Your task to perform on an android device: delete location history Image 0: 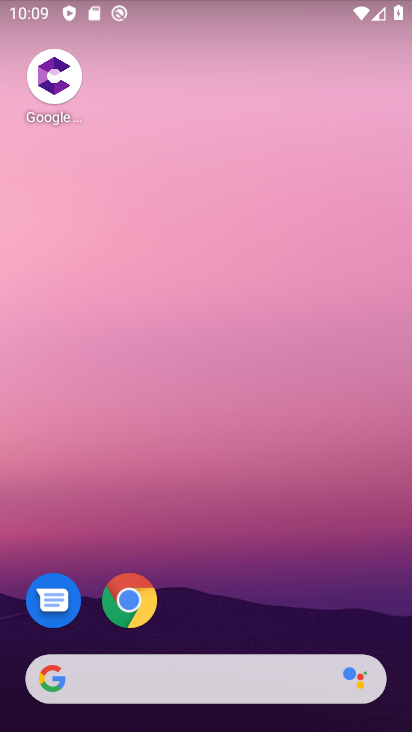
Step 0: drag from (349, 633) to (241, 125)
Your task to perform on an android device: delete location history Image 1: 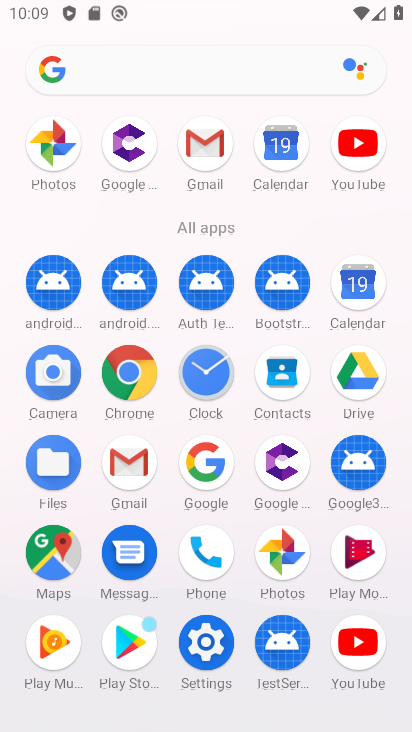
Step 1: click (197, 647)
Your task to perform on an android device: delete location history Image 2: 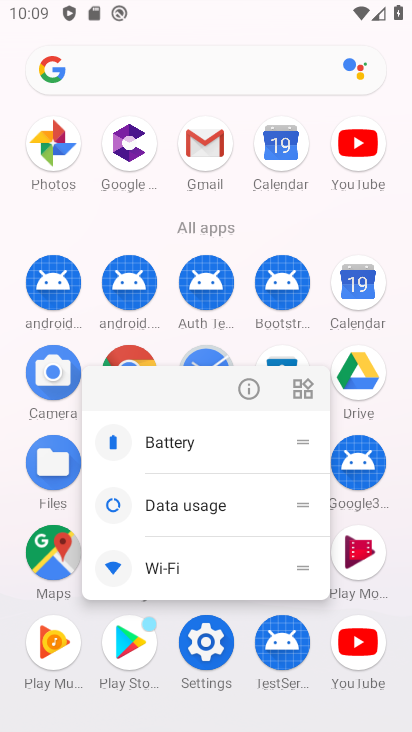
Step 2: click (48, 558)
Your task to perform on an android device: delete location history Image 3: 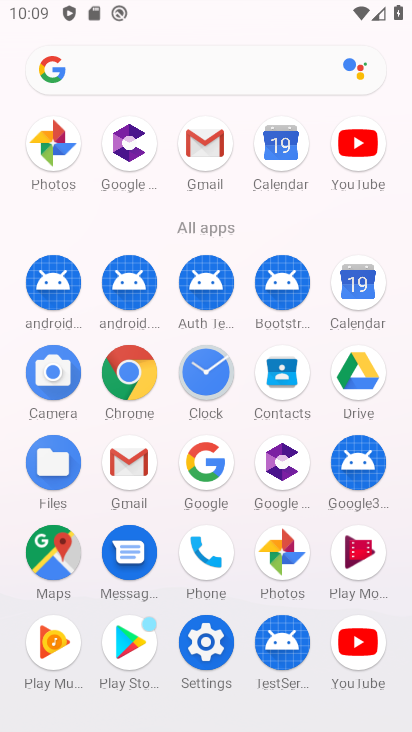
Step 3: click (48, 558)
Your task to perform on an android device: delete location history Image 4: 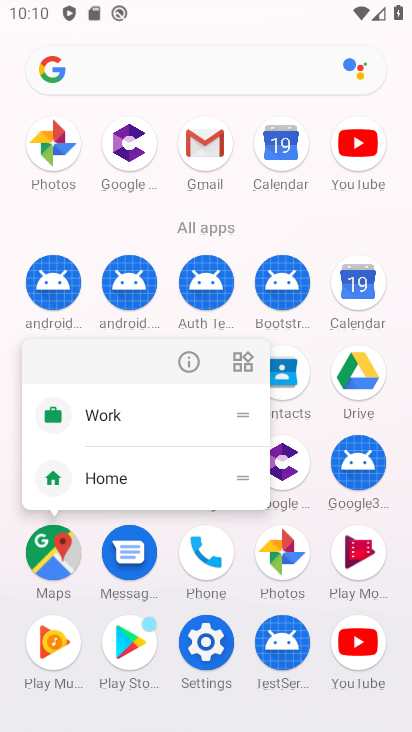
Step 4: click (36, 545)
Your task to perform on an android device: delete location history Image 5: 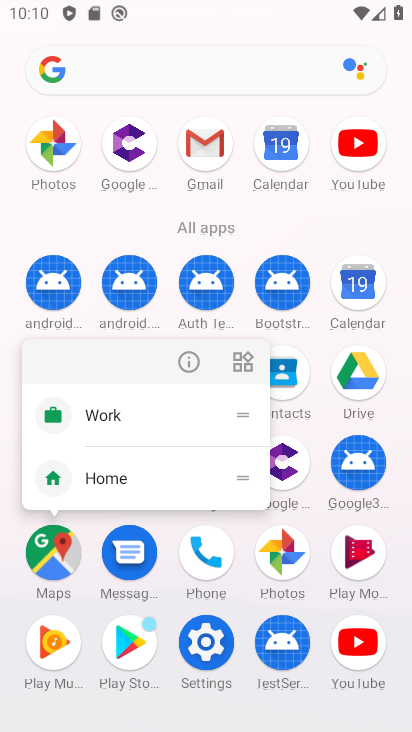
Step 5: click (55, 566)
Your task to perform on an android device: delete location history Image 6: 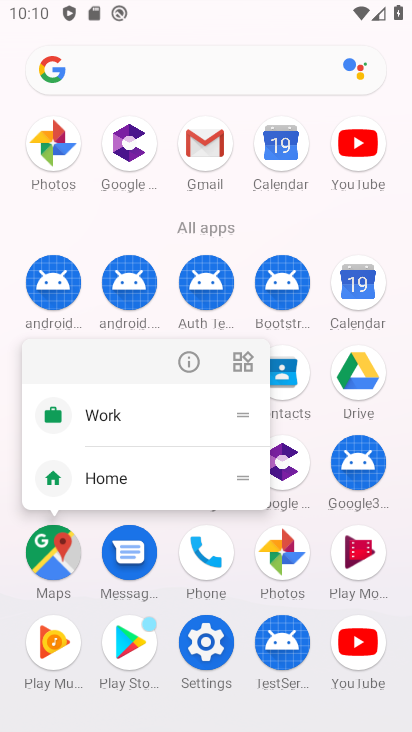
Step 6: click (105, 474)
Your task to perform on an android device: delete location history Image 7: 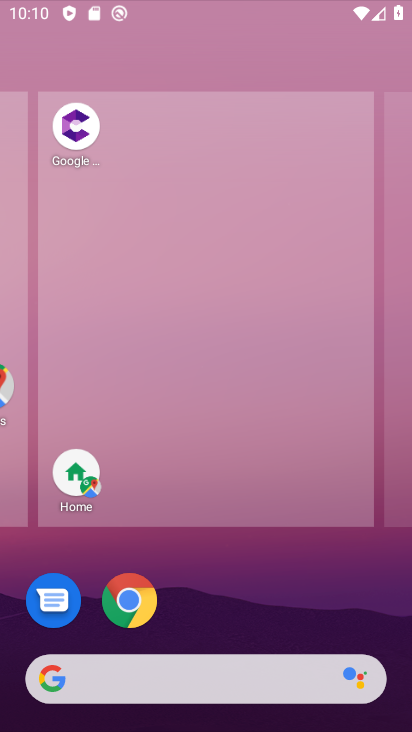
Step 7: click (155, 596)
Your task to perform on an android device: delete location history Image 8: 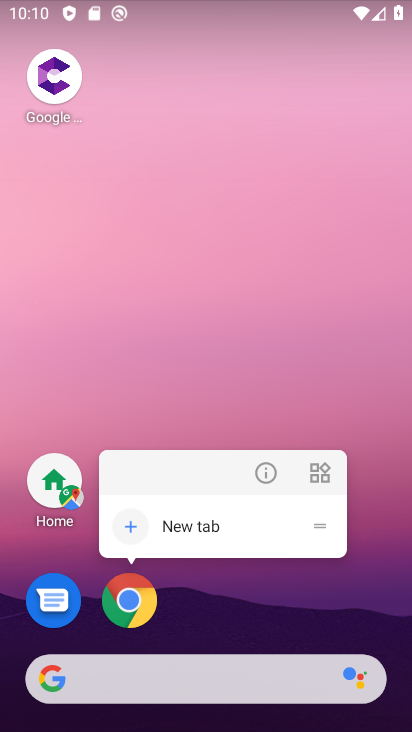
Step 8: drag from (205, 643) to (286, 29)
Your task to perform on an android device: delete location history Image 9: 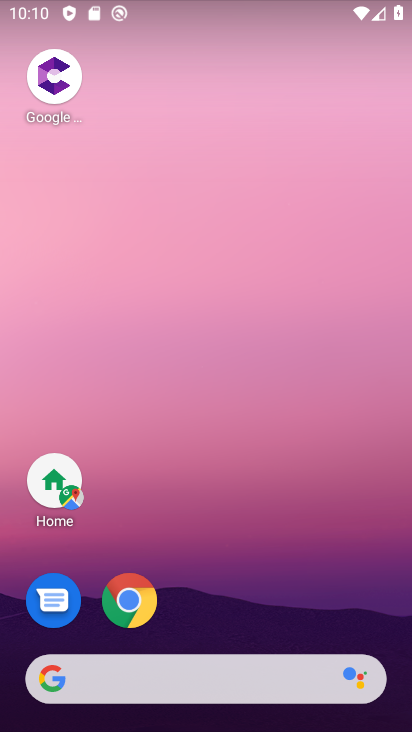
Step 9: drag from (302, 652) to (284, 24)
Your task to perform on an android device: delete location history Image 10: 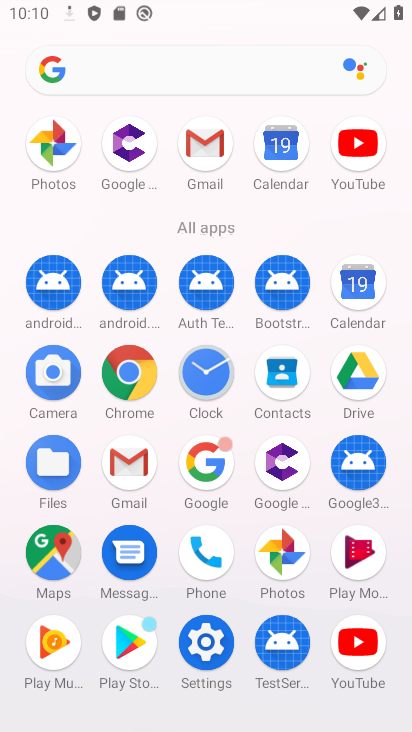
Step 10: click (44, 569)
Your task to perform on an android device: delete location history Image 11: 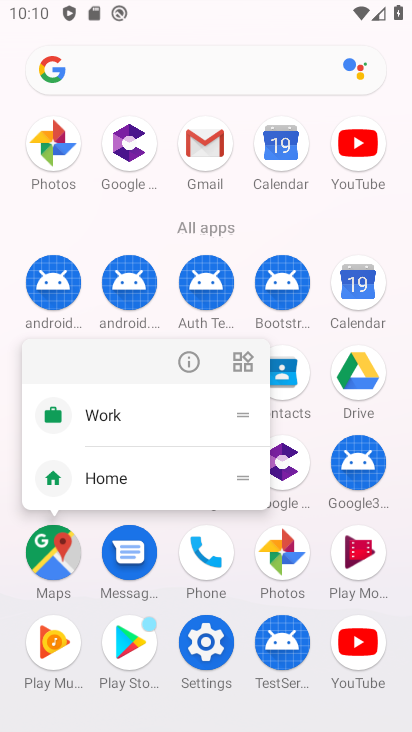
Step 11: click (34, 550)
Your task to perform on an android device: delete location history Image 12: 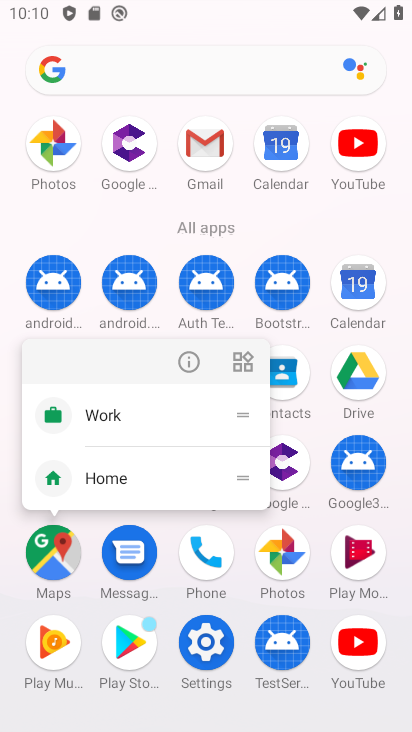
Step 12: click (38, 566)
Your task to perform on an android device: delete location history Image 13: 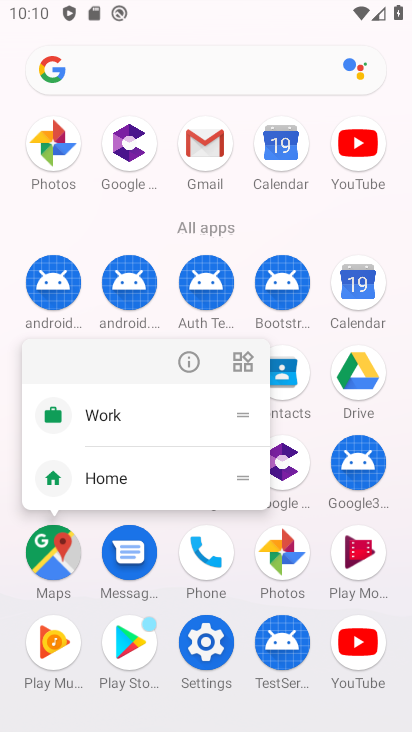
Step 13: click (48, 563)
Your task to perform on an android device: delete location history Image 14: 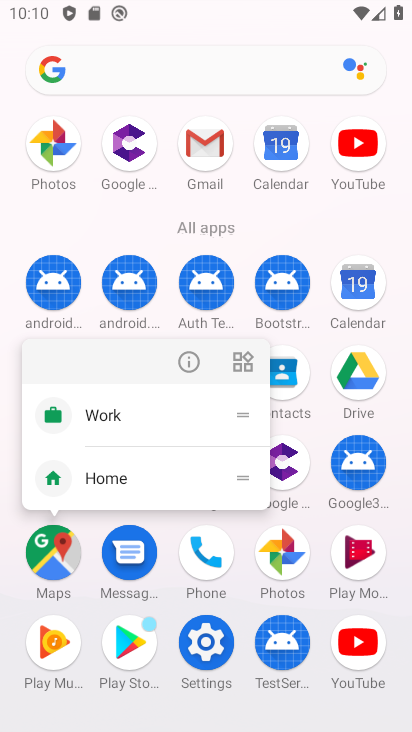
Step 14: click (48, 563)
Your task to perform on an android device: delete location history Image 15: 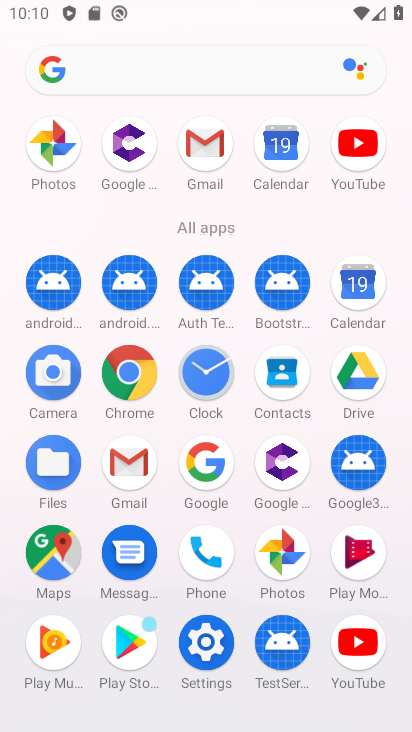
Step 15: click (64, 568)
Your task to perform on an android device: delete location history Image 16: 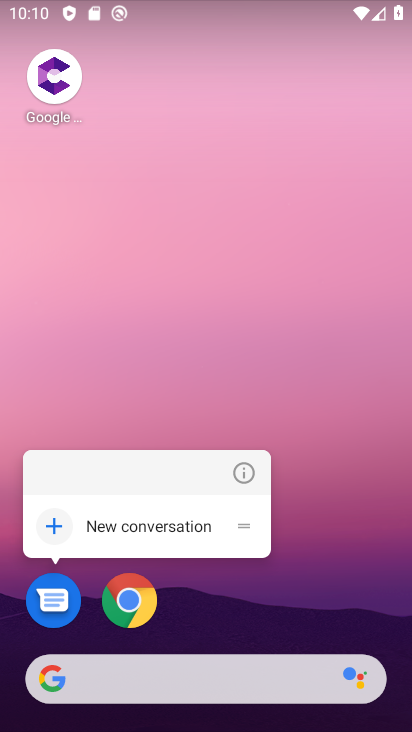
Step 16: click (258, 601)
Your task to perform on an android device: delete location history Image 17: 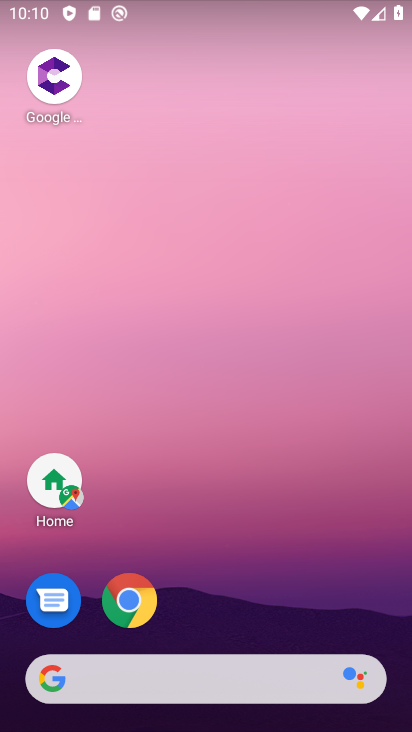
Step 17: drag from (261, 419) to (271, 130)
Your task to perform on an android device: delete location history Image 18: 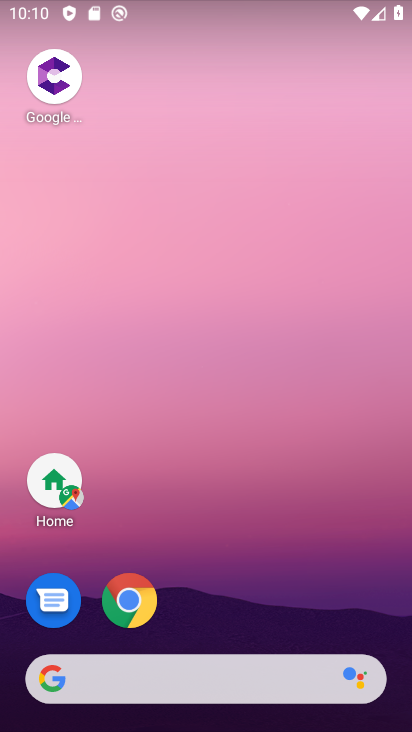
Step 18: drag from (191, 661) to (256, 87)
Your task to perform on an android device: delete location history Image 19: 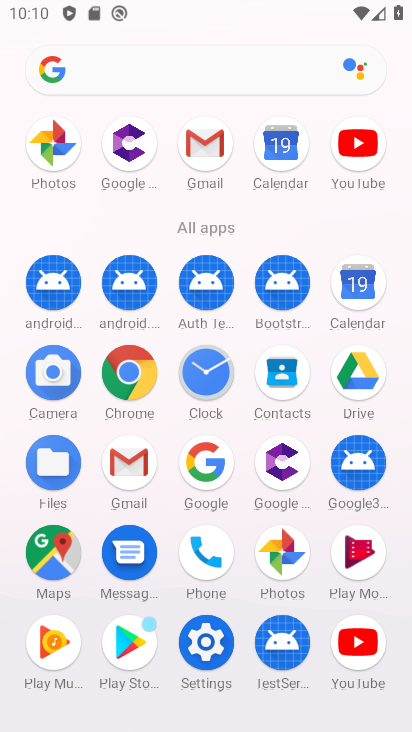
Step 19: click (38, 555)
Your task to perform on an android device: delete location history Image 20: 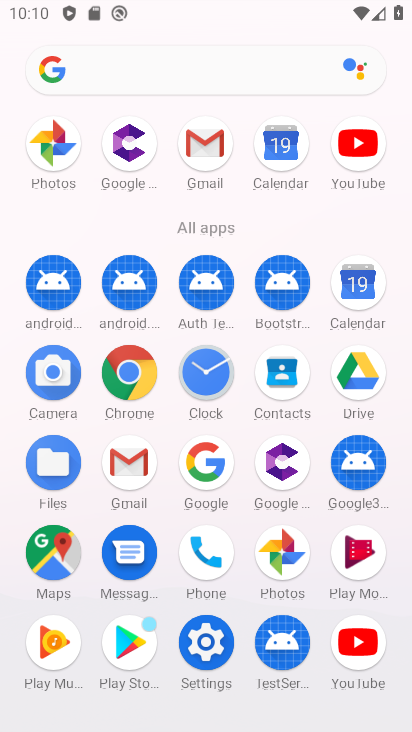
Step 20: click (38, 555)
Your task to perform on an android device: delete location history Image 21: 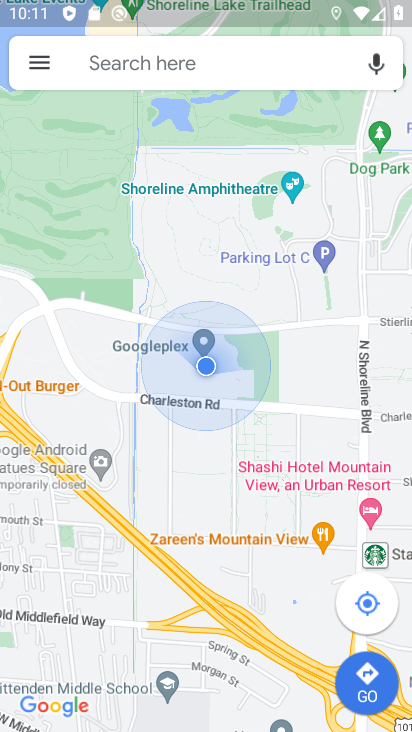
Step 21: click (23, 57)
Your task to perform on an android device: delete location history Image 22: 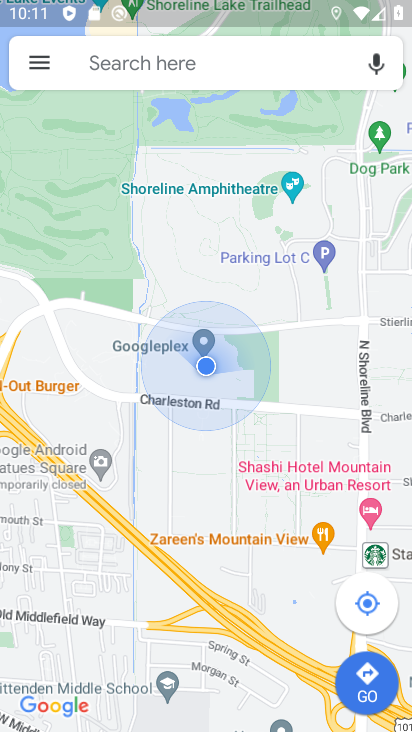
Step 22: click (35, 62)
Your task to perform on an android device: delete location history Image 23: 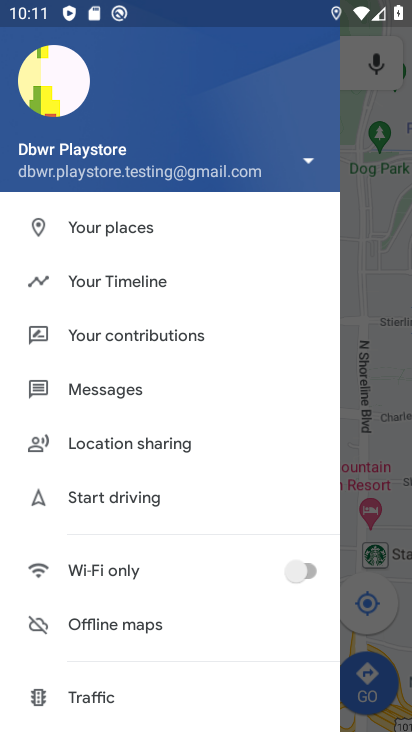
Step 23: click (104, 289)
Your task to perform on an android device: delete location history Image 24: 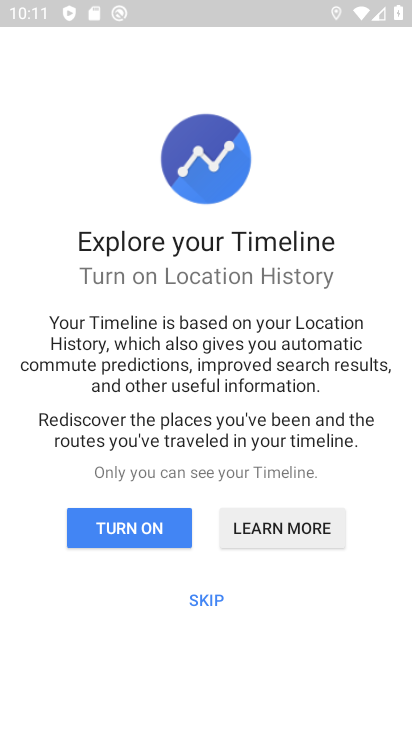
Step 24: click (217, 601)
Your task to perform on an android device: delete location history Image 25: 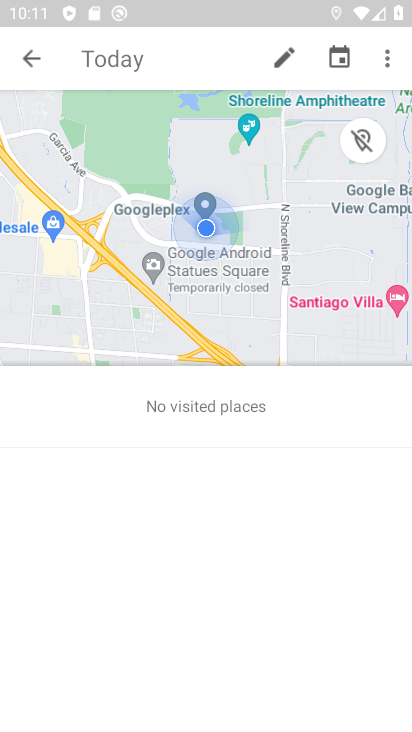
Step 25: click (385, 57)
Your task to perform on an android device: delete location history Image 26: 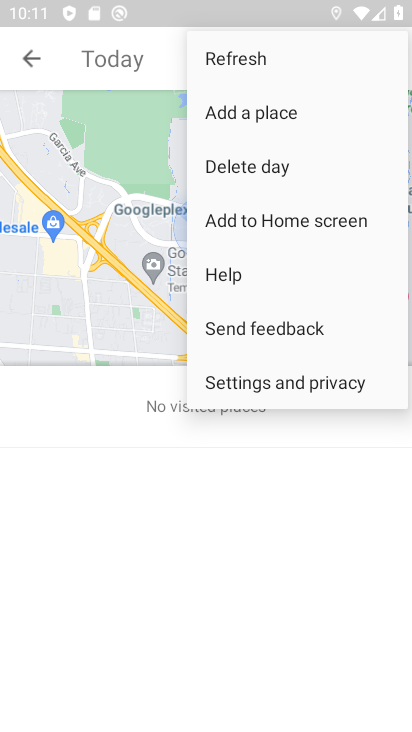
Step 26: click (274, 380)
Your task to perform on an android device: delete location history Image 27: 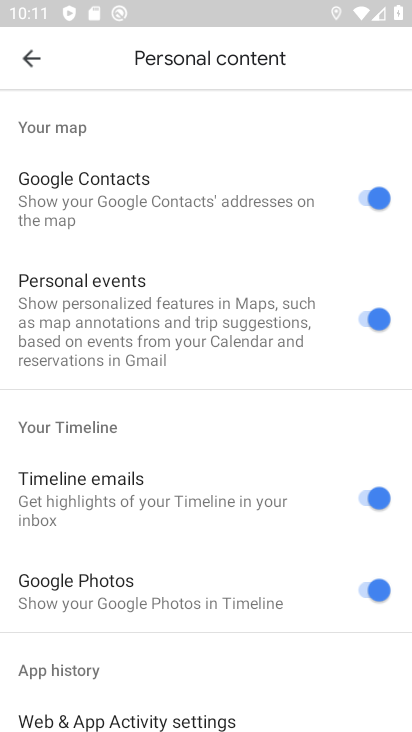
Step 27: drag from (191, 626) to (157, 184)
Your task to perform on an android device: delete location history Image 28: 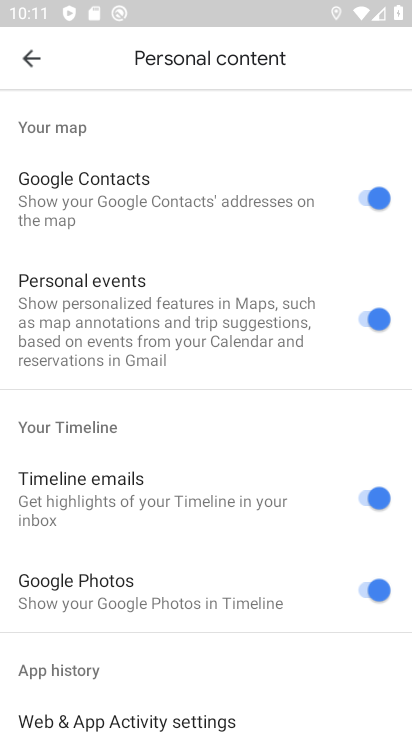
Step 28: drag from (242, 715) to (240, 276)
Your task to perform on an android device: delete location history Image 29: 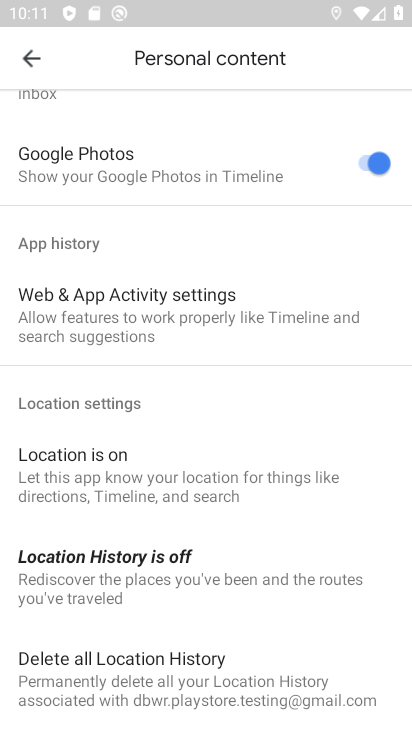
Step 29: click (273, 681)
Your task to perform on an android device: delete location history Image 30: 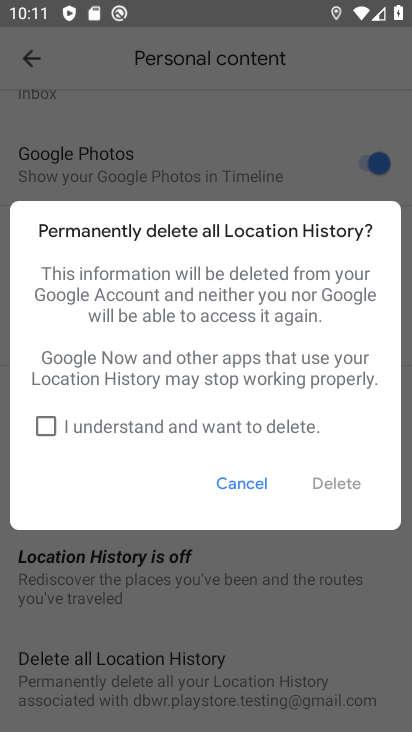
Step 30: click (43, 425)
Your task to perform on an android device: delete location history Image 31: 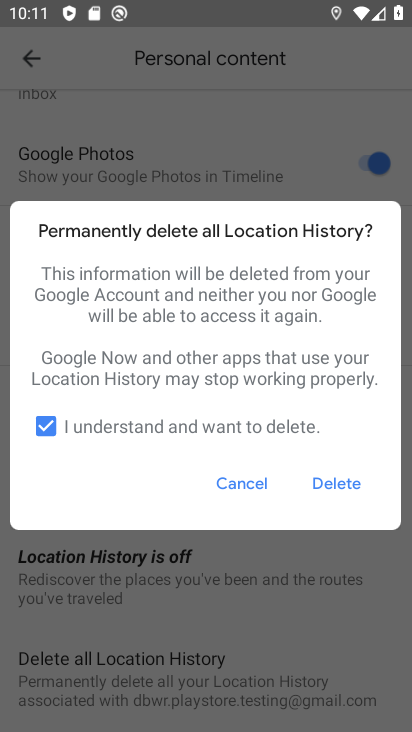
Step 31: click (337, 485)
Your task to perform on an android device: delete location history Image 32: 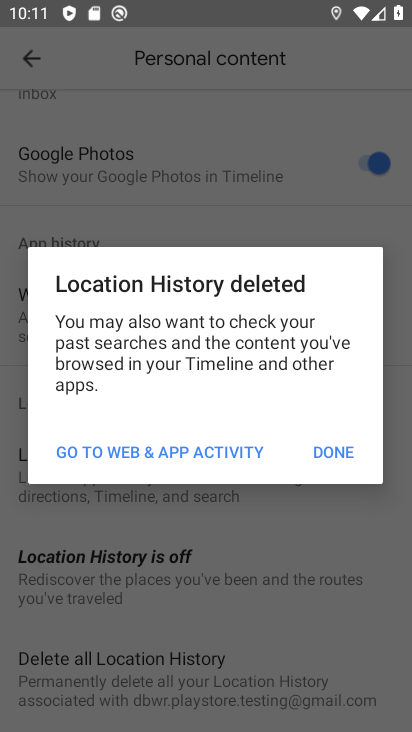
Step 32: click (307, 448)
Your task to perform on an android device: delete location history Image 33: 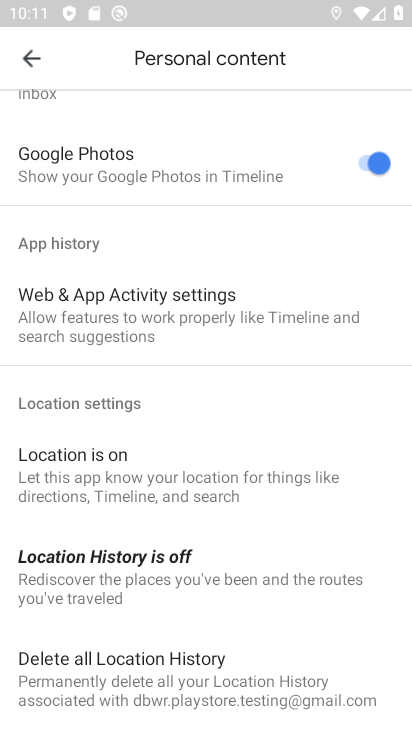
Step 33: task complete